Your task to perform on an android device: Open Amazon Image 0: 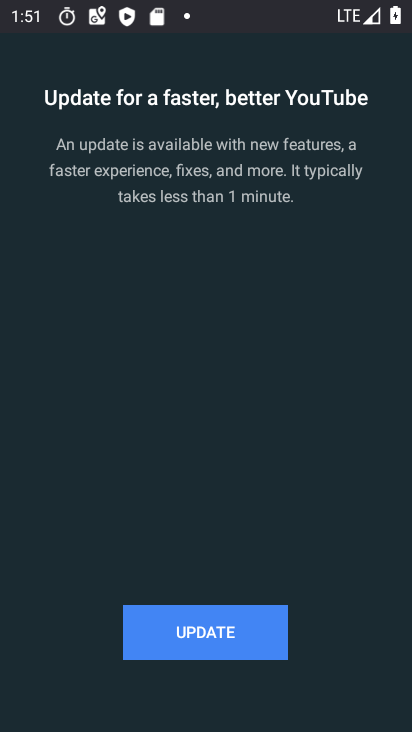
Step 0: press home button
Your task to perform on an android device: Open Amazon Image 1: 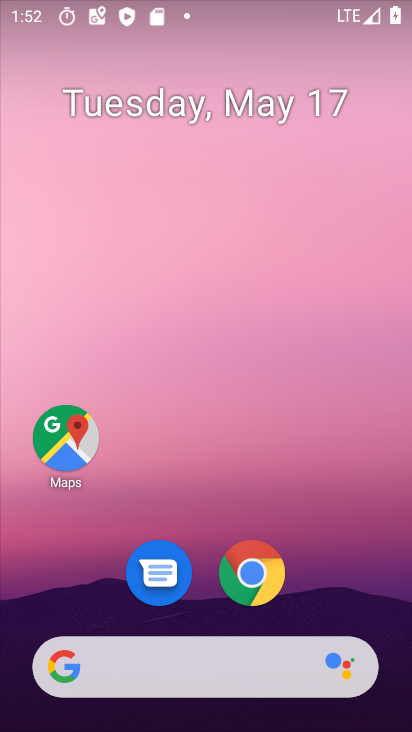
Step 1: click (173, 677)
Your task to perform on an android device: Open Amazon Image 2: 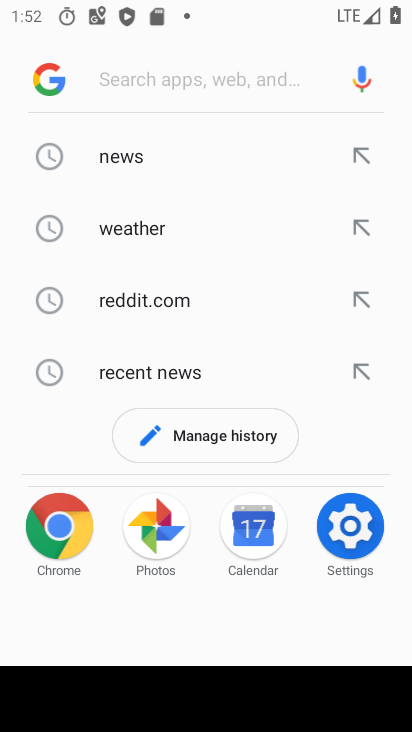
Step 2: type "amazon"
Your task to perform on an android device: Open Amazon Image 3: 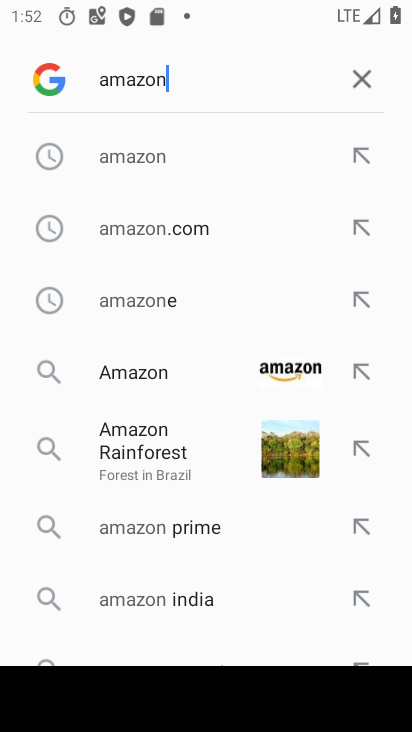
Step 3: click (207, 220)
Your task to perform on an android device: Open Amazon Image 4: 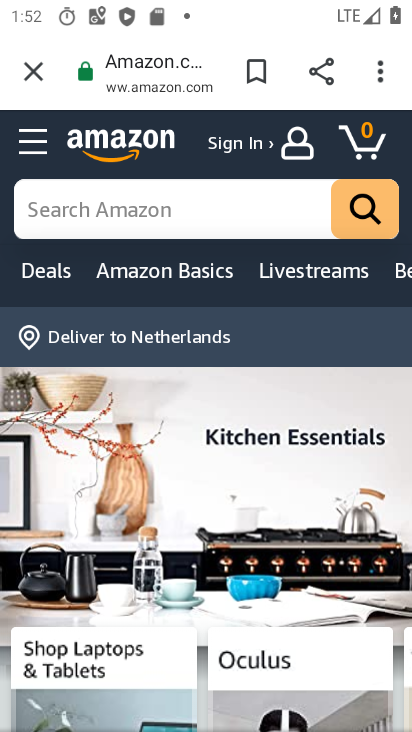
Step 4: task complete